Your task to perform on an android device: Open the map Image 0: 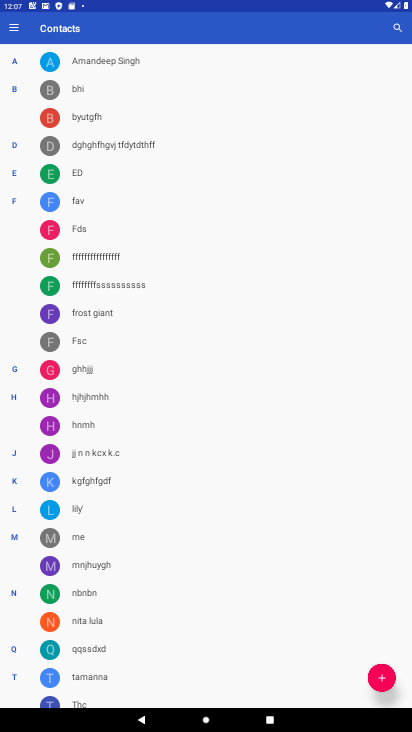
Step 0: press home button
Your task to perform on an android device: Open the map Image 1: 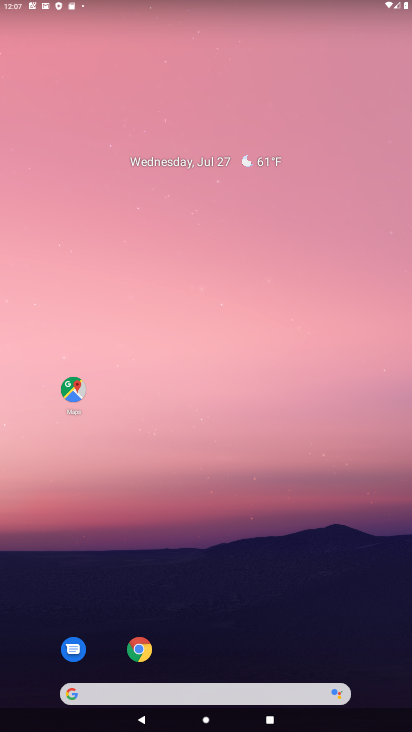
Step 1: click (219, 664)
Your task to perform on an android device: Open the map Image 2: 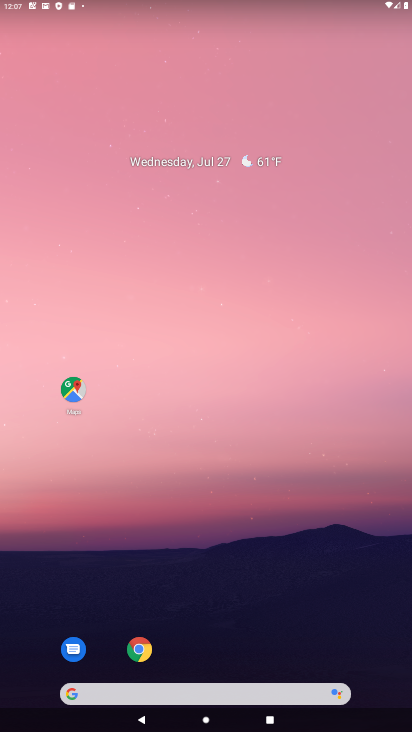
Step 2: click (77, 386)
Your task to perform on an android device: Open the map Image 3: 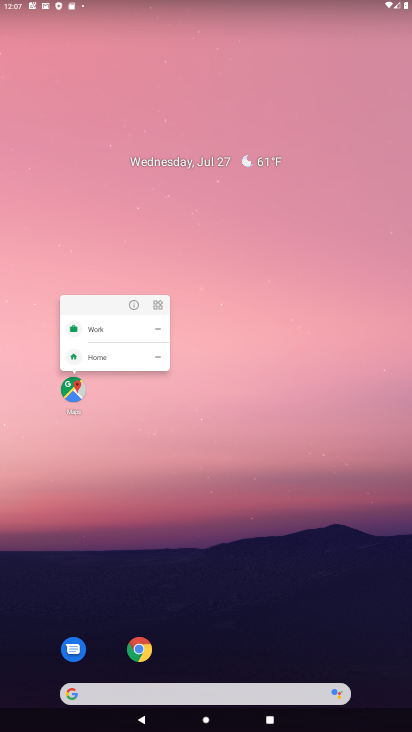
Step 3: click (67, 392)
Your task to perform on an android device: Open the map Image 4: 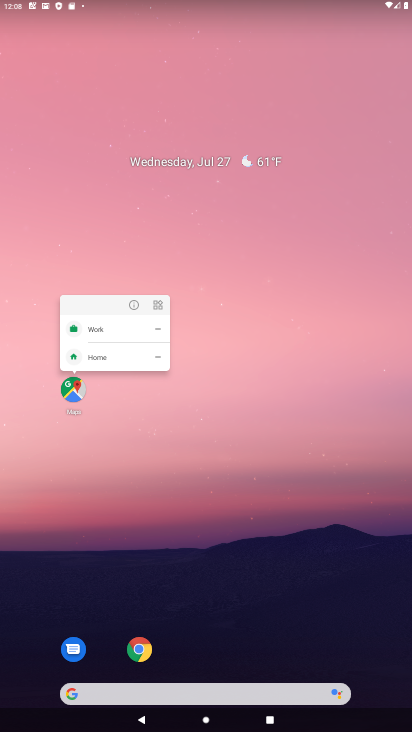
Step 4: click (68, 397)
Your task to perform on an android device: Open the map Image 5: 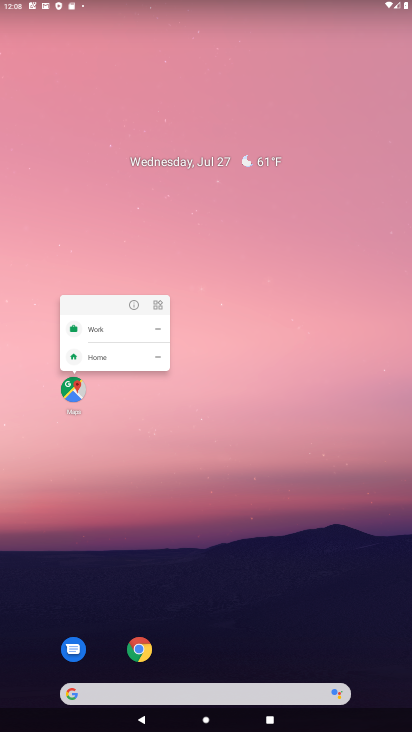
Step 5: click (68, 396)
Your task to perform on an android device: Open the map Image 6: 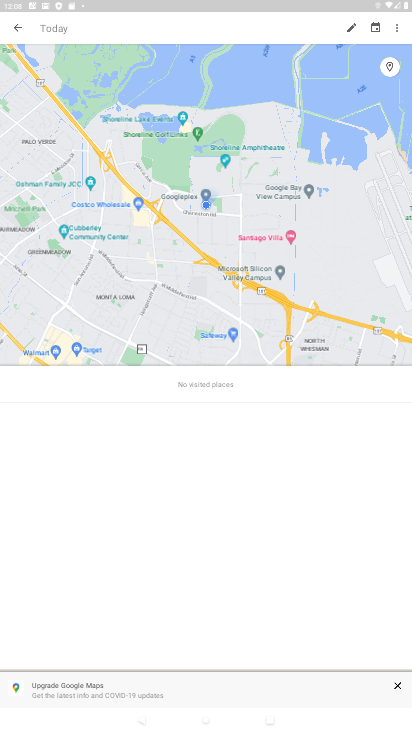
Step 6: click (16, 30)
Your task to perform on an android device: Open the map Image 7: 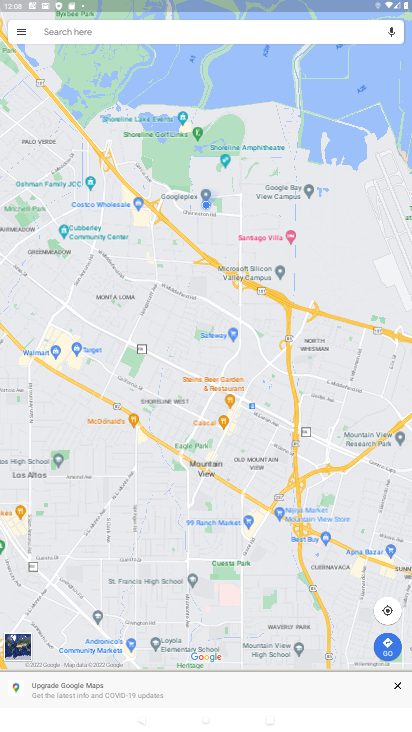
Step 7: task complete